Your task to perform on an android device: delete the emails in spam in the gmail app Image 0: 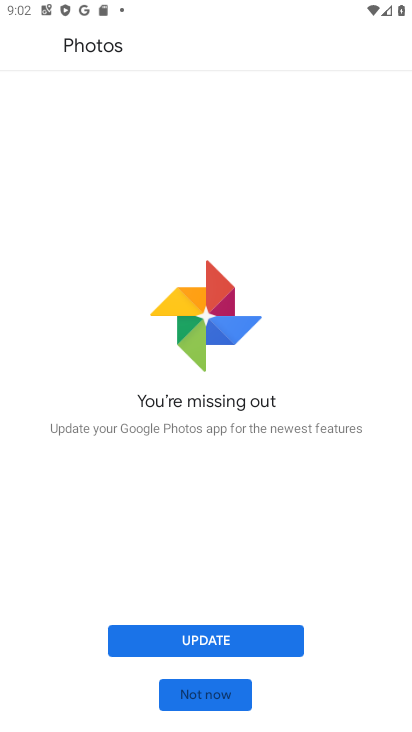
Step 0: press home button
Your task to perform on an android device: delete the emails in spam in the gmail app Image 1: 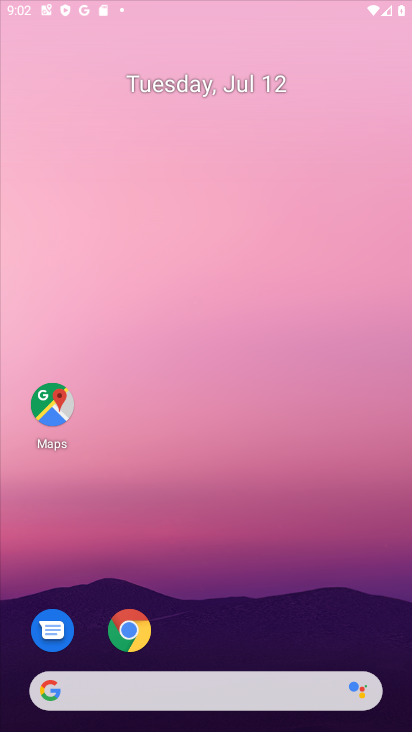
Step 1: drag from (197, 639) to (236, 121)
Your task to perform on an android device: delete the emails in spam in the gmail app Image 2: 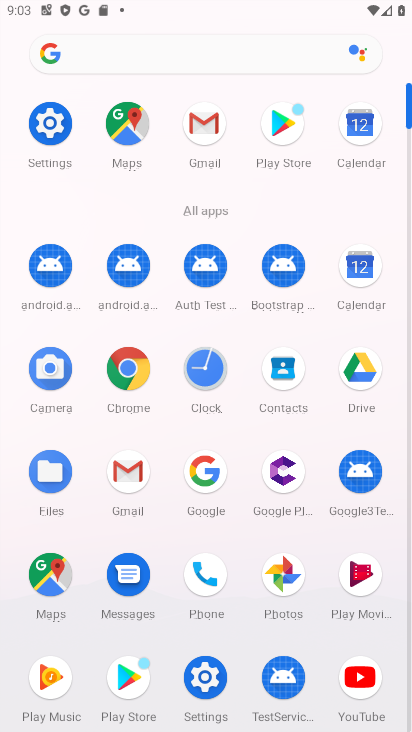
Step 2: click (205, 119)
Your task to perform on an android device: delete the emails in spam in the gmail app Image 3: 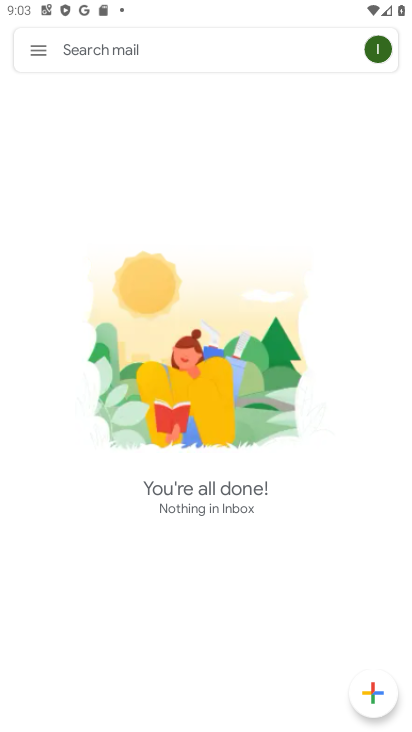
Step 3: click (37, 52)
Your task to perform on an android device: delete the emails in spam in the gmail app Image 4: 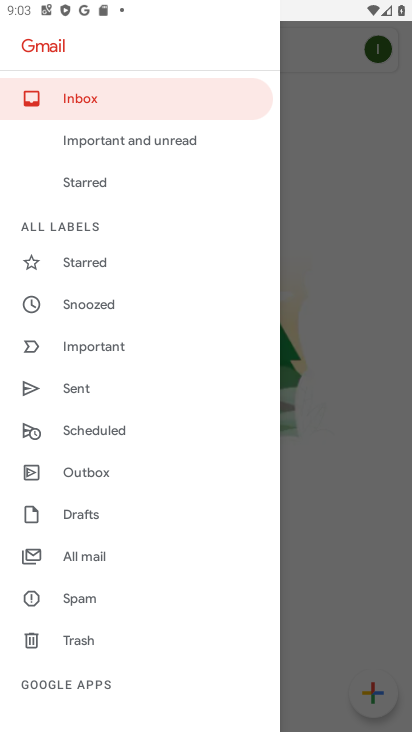
Step 4: click (67, 593)
Your task to perform on an android device: delete the emails in spam in the gmail app Image 5: 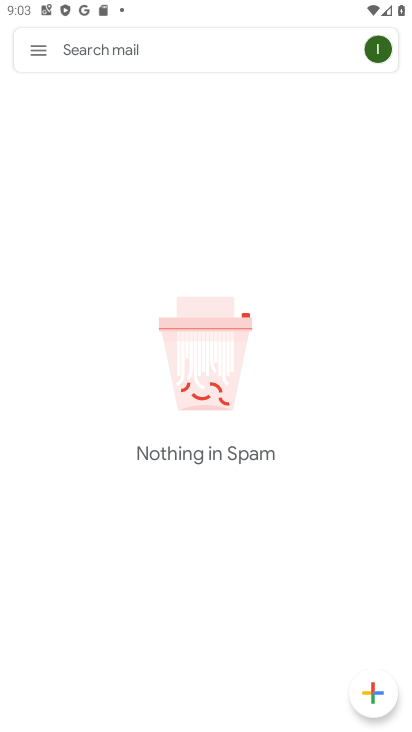
Step 5: task complete